Your task to perform on an android device: turn smart compose on in the gmail app Image 0: 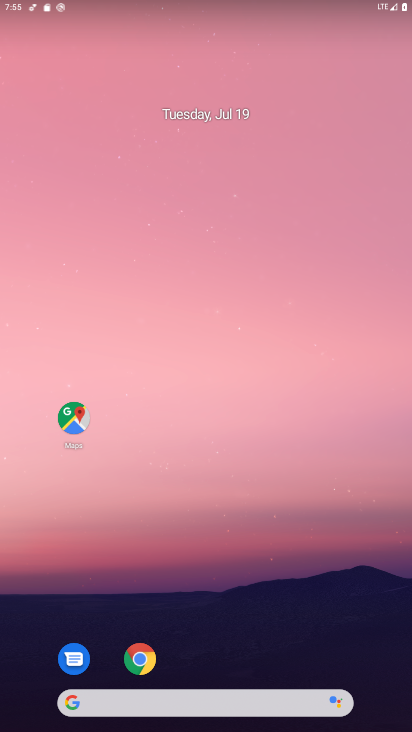
Step 0: drag from (248, 652) to (261, 120)
Your task to perform on an android device: turn smart compose on in the gmail app Image 1: 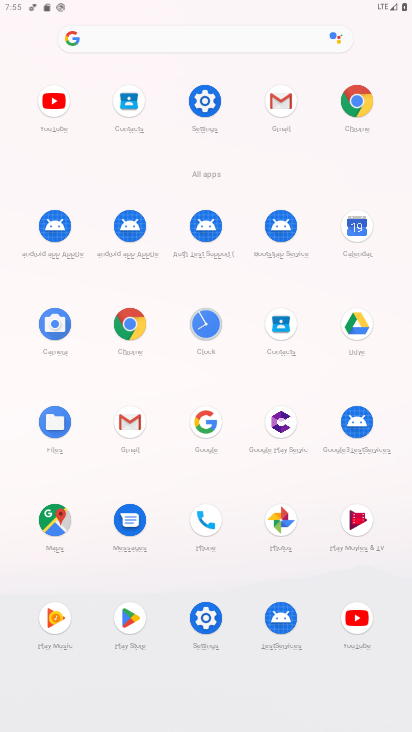
Step 1: click (117, 422)
Your task to perform on an android device: turn smart compose on in the gmail app Image 2: 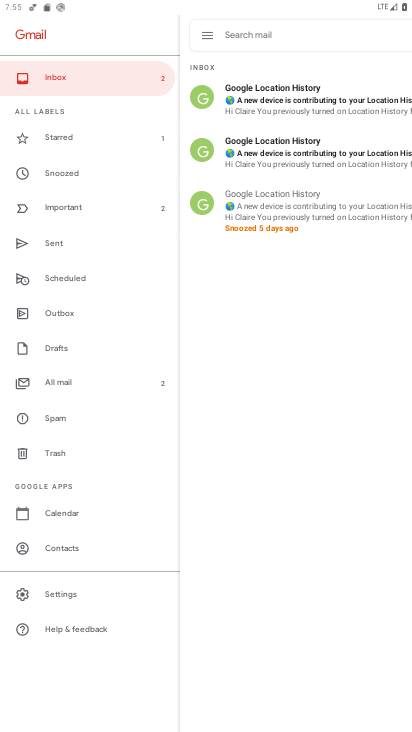
Step 2: click (59, 597)
Your task to perform on an android device: turn smart compose on in the gmail app Image 3: 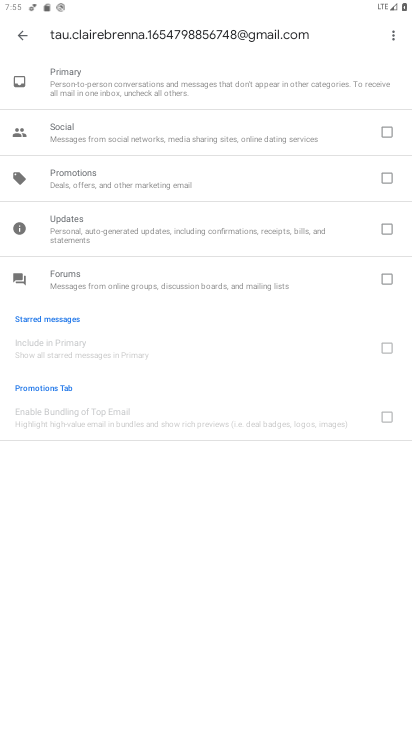
Step 3: click (19, 34)
Your task to perform on an android device: turn smart compose on in the gmail app Image 4: 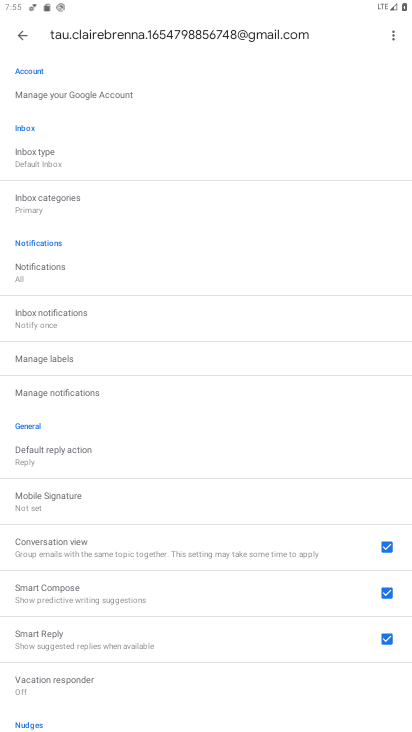
Step 4: task complete